Your task to perform on an android device: turn on improve location accuracy Image 0: 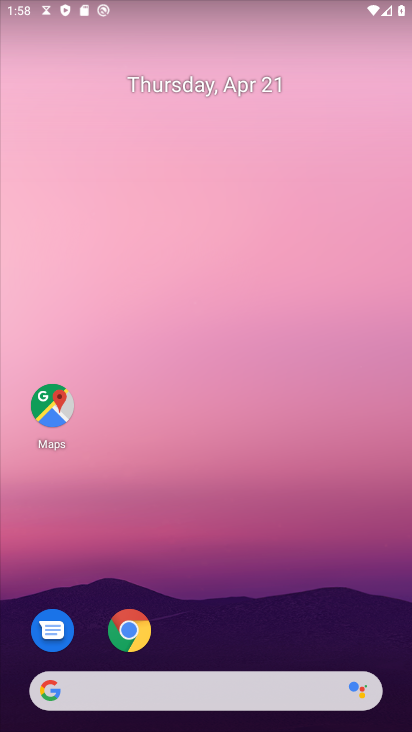
Step 0: drag from (361, 594) to (318, 8)
Your task to perform on an android device: turn on improve location accuracy Image 1: 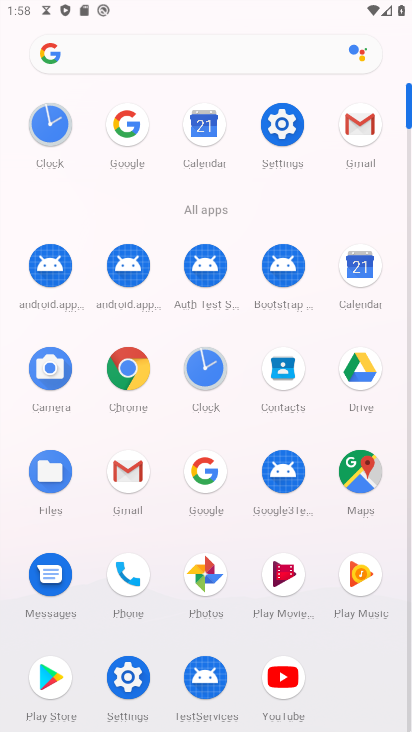
Step 1: click (280, 137)
Your task to perform on an android device: turn on improve location accuracy Image 2: 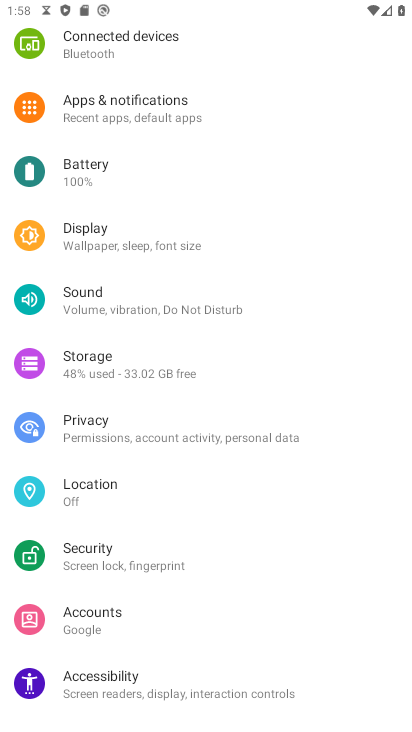
Step 2: click (46, 511)
Your task to perform on an android device: turn on improve location accuracy Image 3: 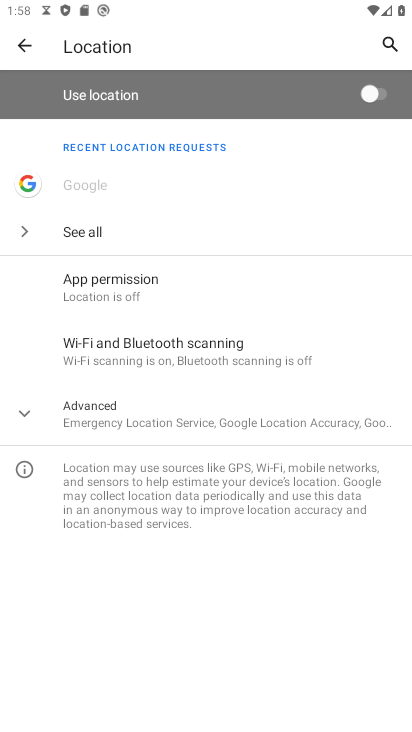
Step 3: click (20, 418)
Your task to perform on an android device: turn on improve location accuracy Image 4: 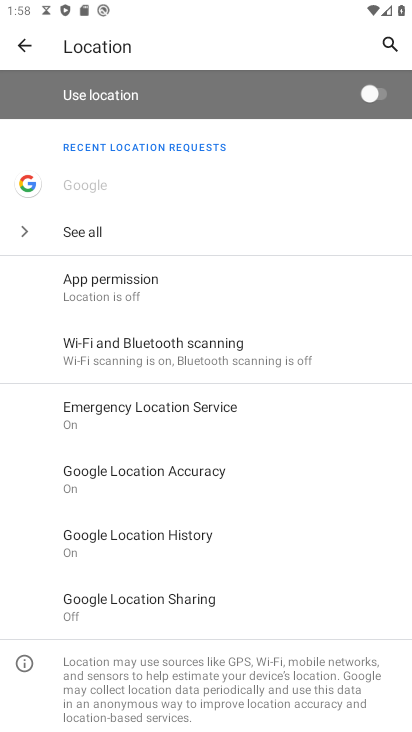
Step 4: click (133, 477)
Your task to perform on an android device: turn on improve location accuracy Image 5: 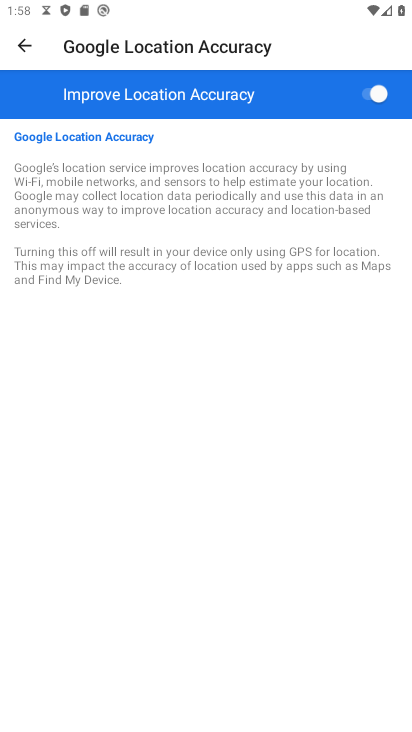
Step 5: task complete